Your task to perform on an android device: Open calendar and show me the fourth week of next month Image 0: 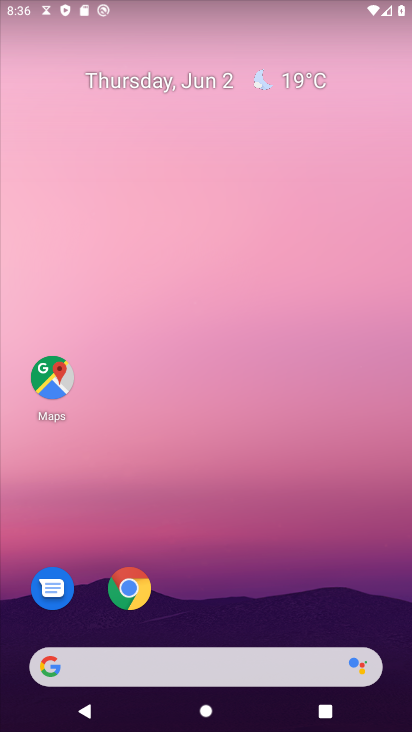
Step 0: drag from (251, 528) to (313, 54)
Your task to perform on an android device: Open calendar and show me the fourth week of next month Image 1: 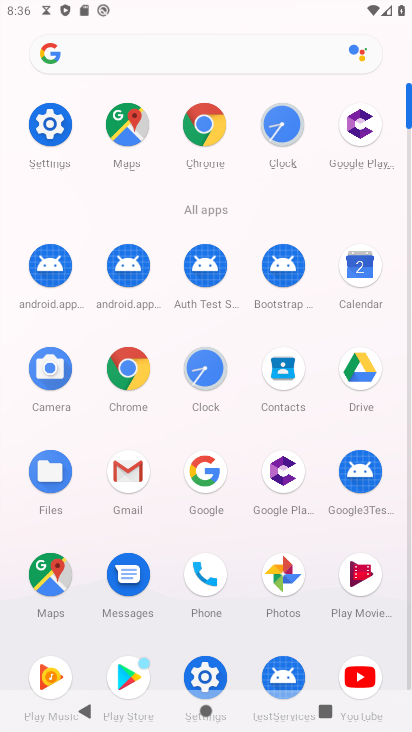
Step 1: click (358, 270)
Your task to perform on an android device: Open calendar and show me the fourth week of next month Image 2: 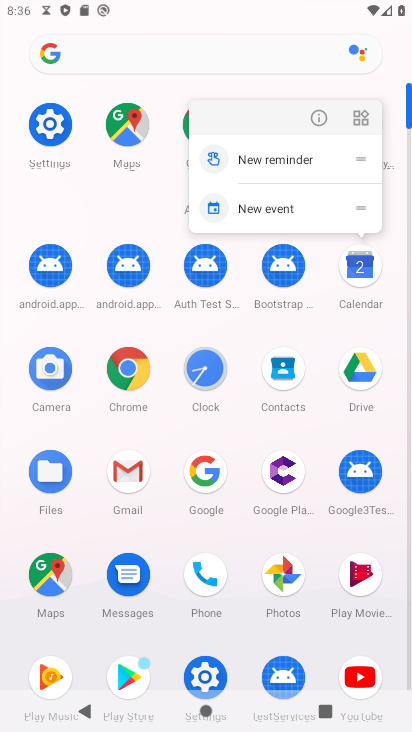
Step 2: click (365, 277)
Your task to perform on an android device: Open calendar and show me the fourth week of next month Image 3: 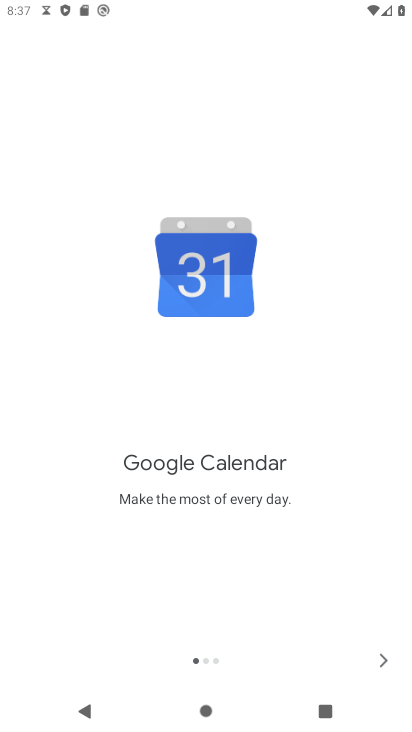
Step 3: click (381, 660)
Your task to perform on an android device: Open calendar and show me the fourth week of next month Image 4: 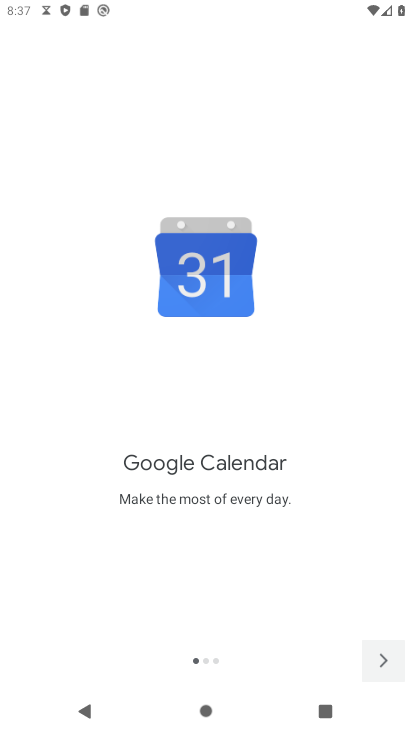
Step 4: click (381, 660)
Your task to perform on an android device: Open calendar and show me the fourth week of next month Image 5: 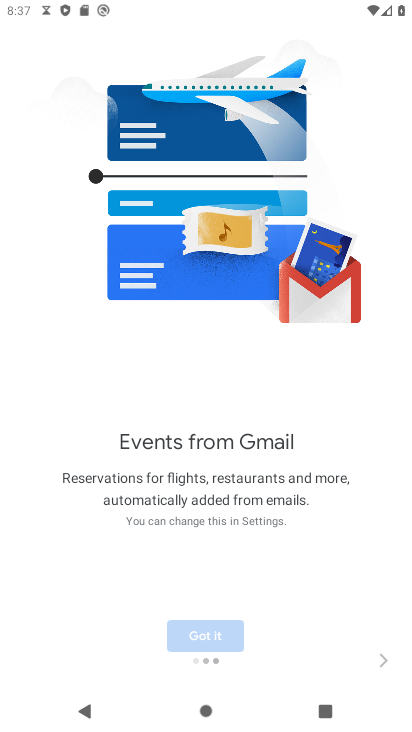
Step 5: click (381, 660)
Your task to perform on an android device: Open calendar and show me the fourth week of next month Image 6: 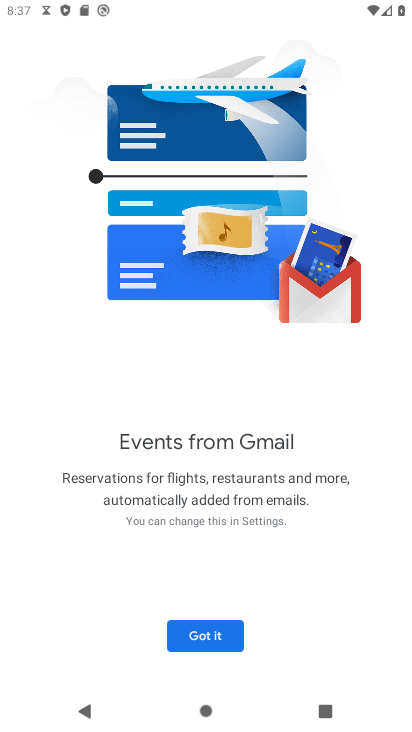
Step 6: click (180, 641)
Your task to perform on an android device: Open calendar and show me the fourth week of next month Image 7: 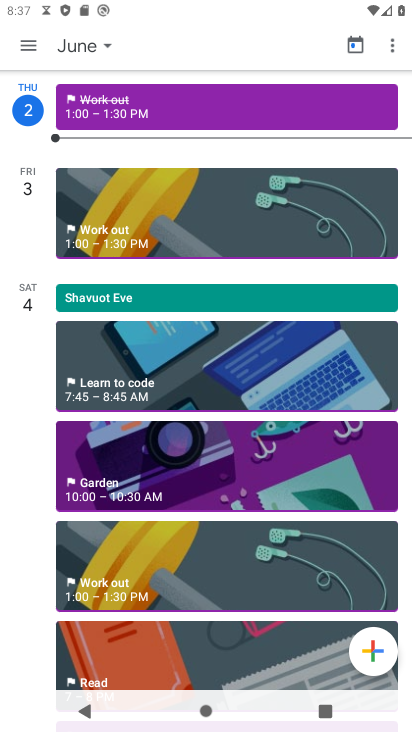
Step 7: click (96, 47)
Your task to perform on an android device: Open calendar and show me the fourth week of next month Image 8: 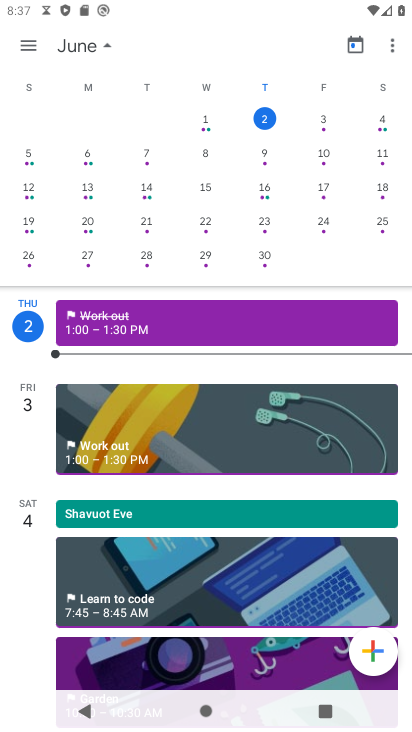
Step 8: click (92, 216)
Your task to perform on an android device: Open calendar and show me the fourth week of next month Image 9: 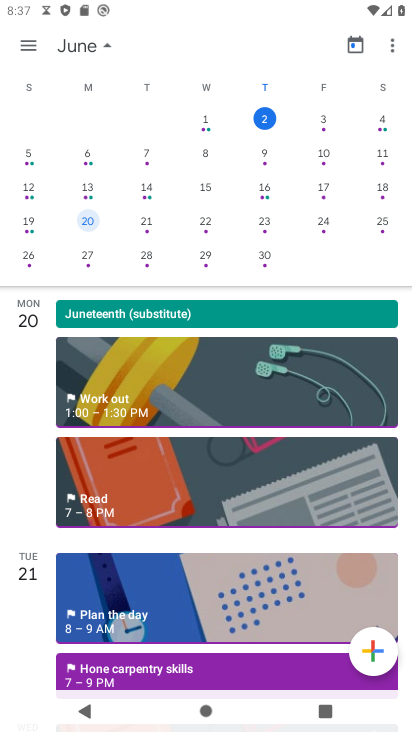
Step 9: drag from (181, 506) to (238, 129)
Your task to perform on an android device: Open calendar and show me the fourth week of next month Image 10: 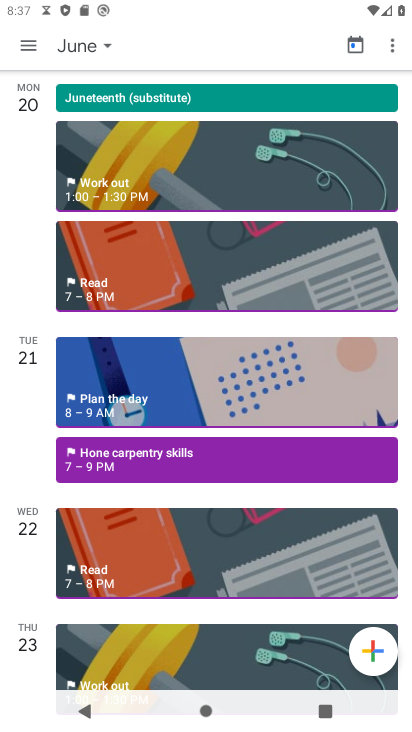
Step 10: drag from (225, 200) to (160, 657)
Your task to perform on an android device: Open calendar and show me the fourth week of next month Image 11: 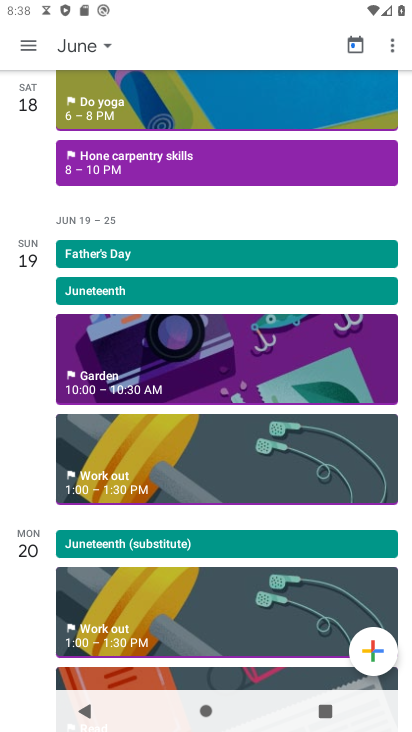
Step 11: drag from (130, 582) to (221, 155)
Your task to perform on an android device: Open calendar and show me the fourth week of next month Image 12: 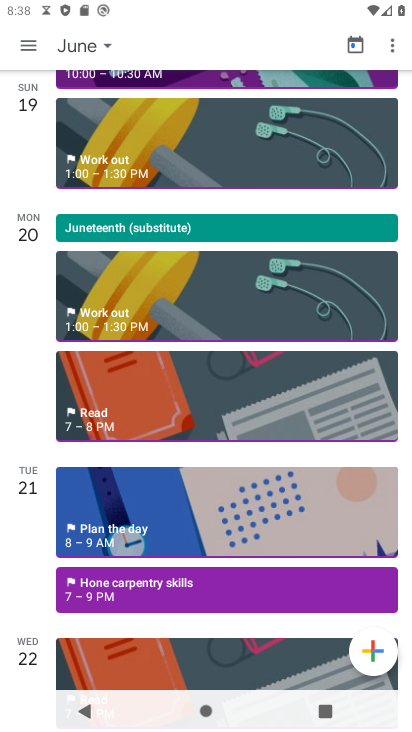
Step 12: drag from (204, 579) to (247, 228)
Your task to perform on an android device: Open calendar and show me the fourth week of next month Image 13: 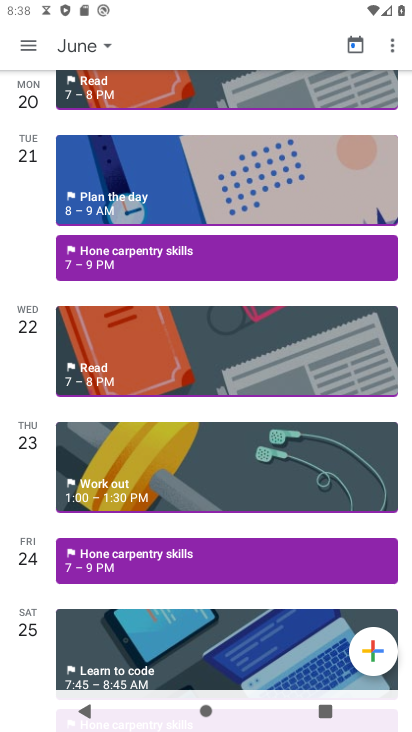
Step 13: drag from (247, 228) to (208, 594)
Your task to perform on an android device: Open calendar and show me the fourth week of next month Image 14: 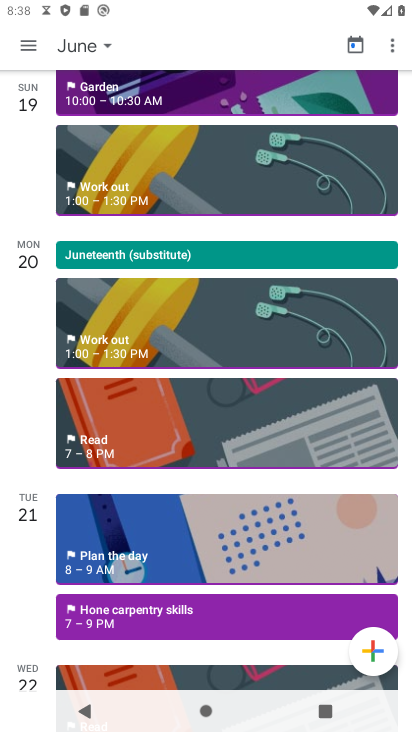
Step 14: click (186, 612)
Your task to perform on an android device: Open calendar and show me the fourth week of next month Image 15: 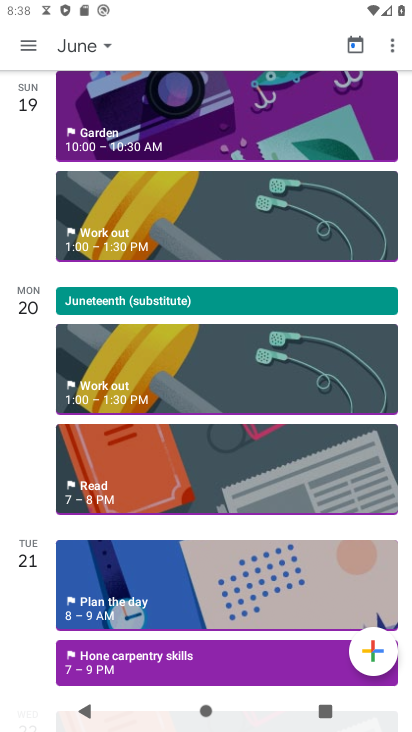
Step 15: task complete